Your task to perform on an android device: install app "Chime – Mobile Banking" Image 0: 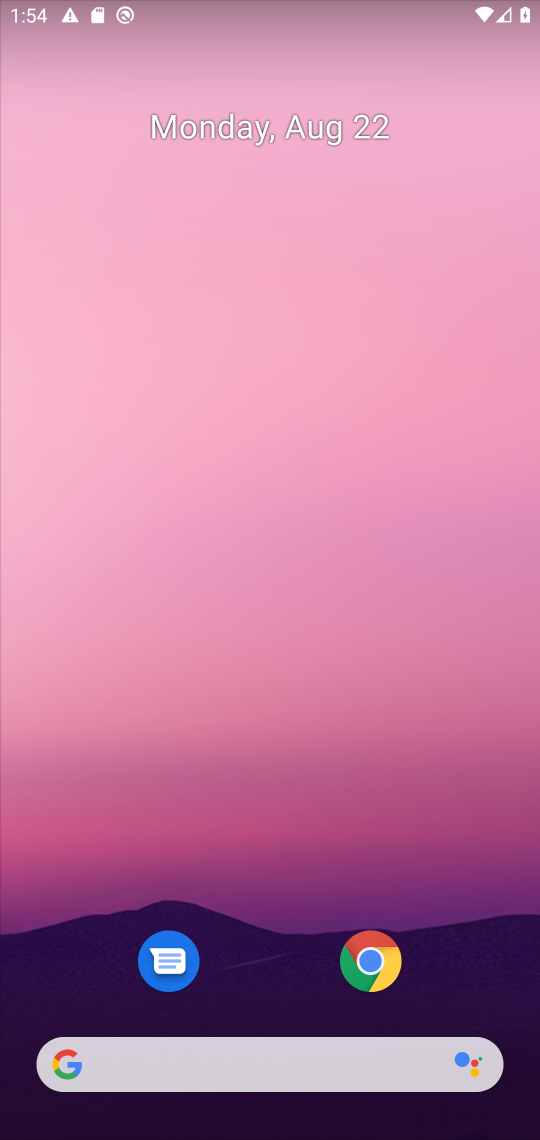
Step 0: drag from (482, 966) to (429, 125)
Your task to perform on an android device: install app "Chime – Mobile Banking" Image 1: 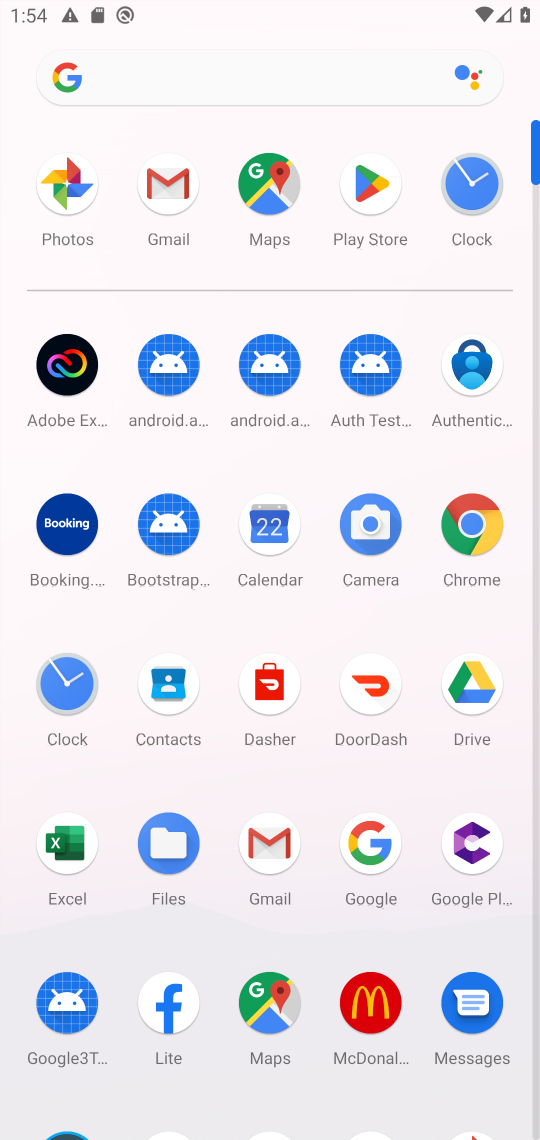
Step 1: click (371, 180)
Your task to perform on an android device: install app "Chime – Mobile Banking" Image 2: 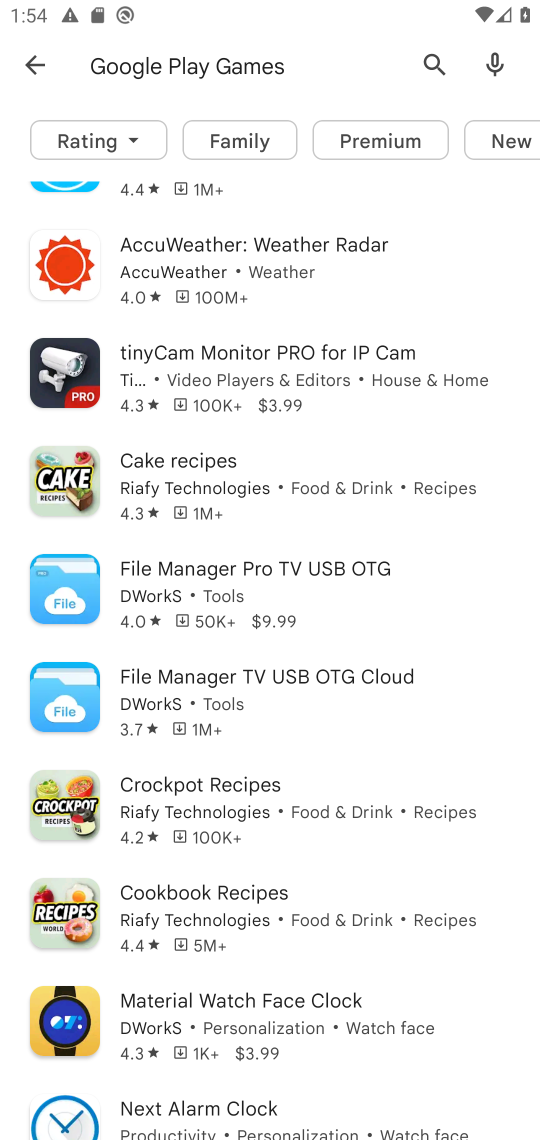
Step 2: press back button
Your task to perform on an android device: install app "Chime – Mobile Banking" Image 3: 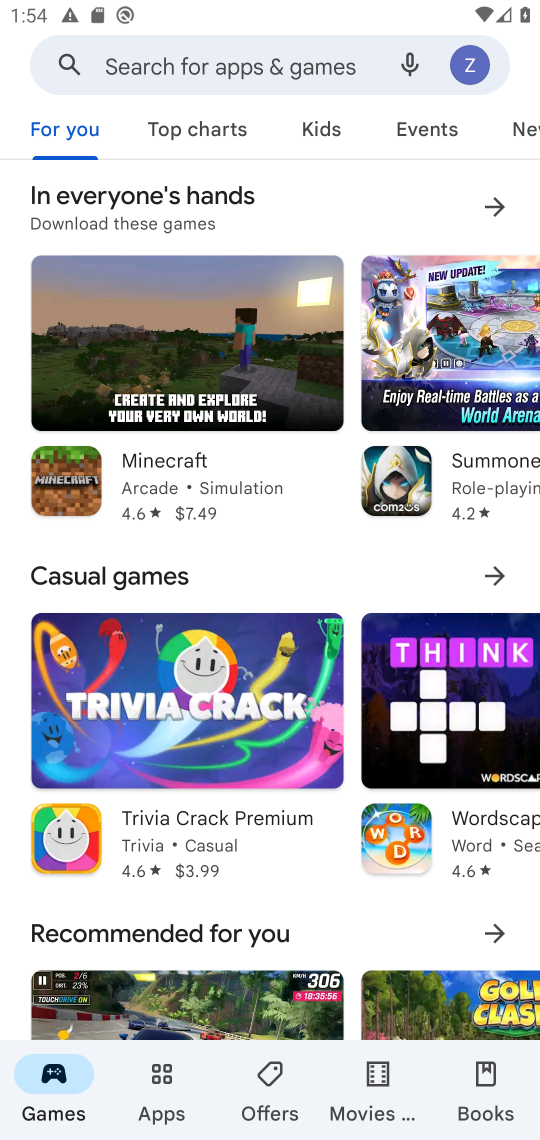
Step 3: click (275, 66)
Your task to perform on an android device: install app "Chime – Mobile Banking" Image 4: 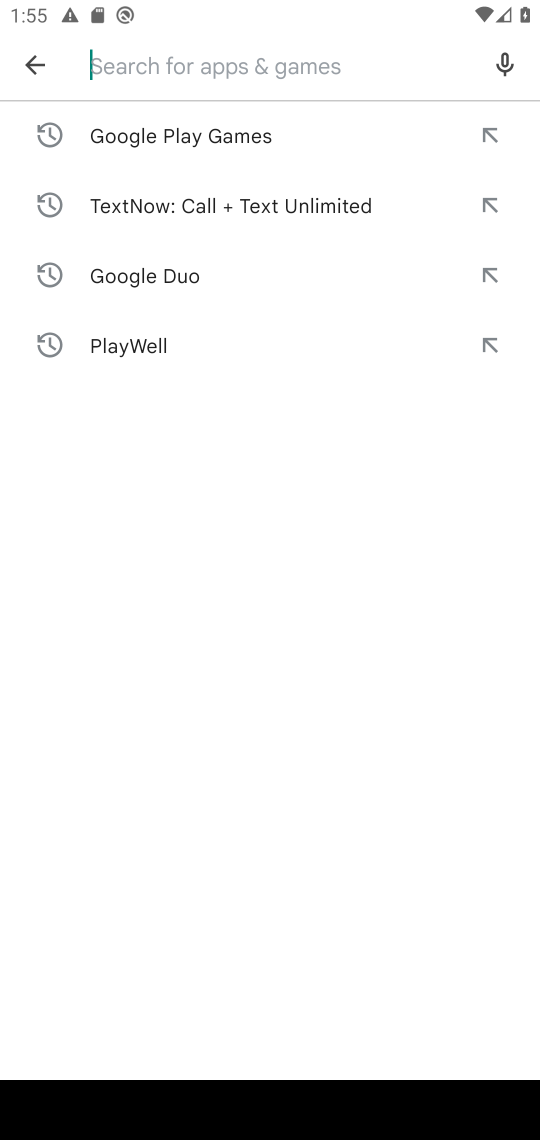
Step 4: type "Chime – Mobile Banking"
Your task to perform on an android device: install app "Chime – Mobile Banking" Image 5: 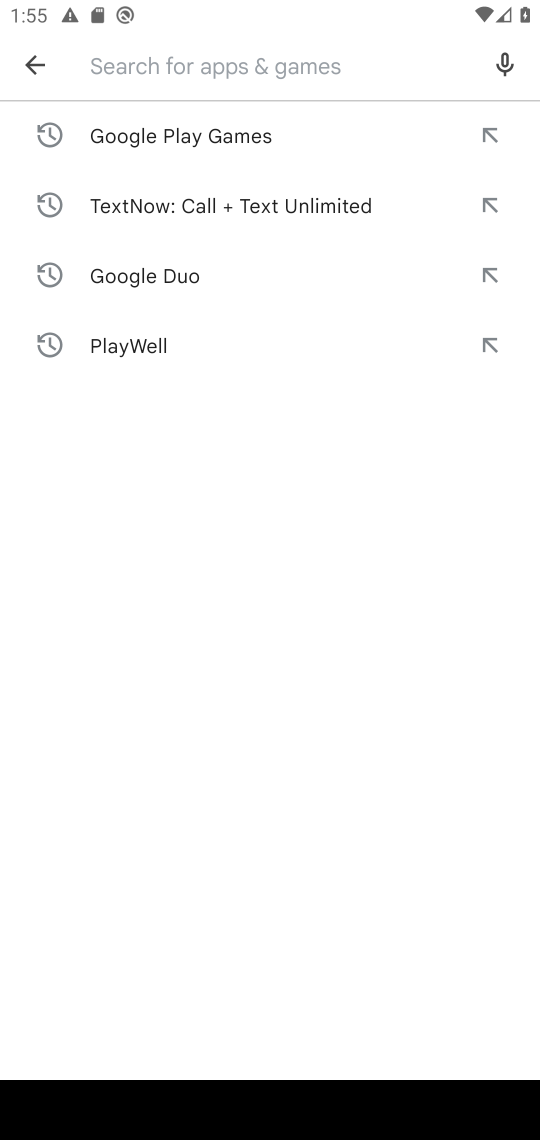
Step 5: press enter
Your task to perform on an android device: install app "Chime – Mobile Banking" Image 6: 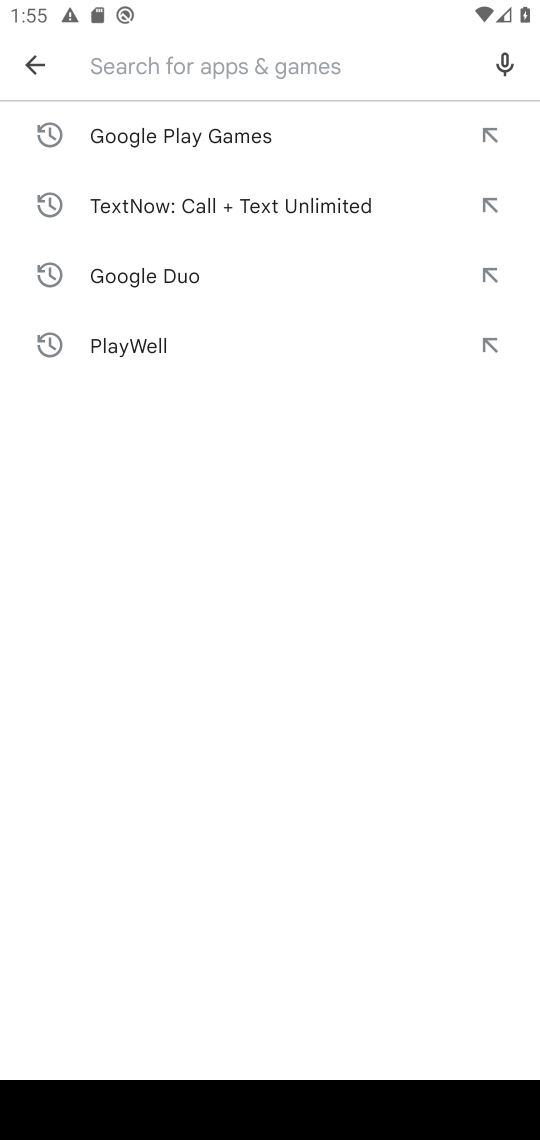
Step 6: task complete